Your task to perform on an android device: What's the weather? Image 0: 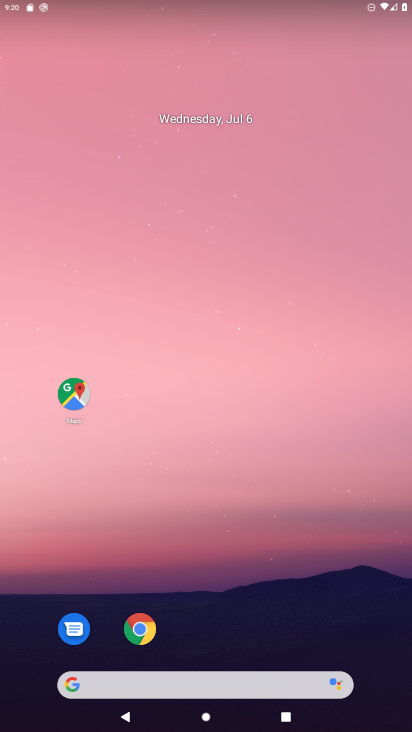
Step 0: drag from (270, 555) to (342, 16)
Your task to perform on an android device: What's the weather? Image 1: 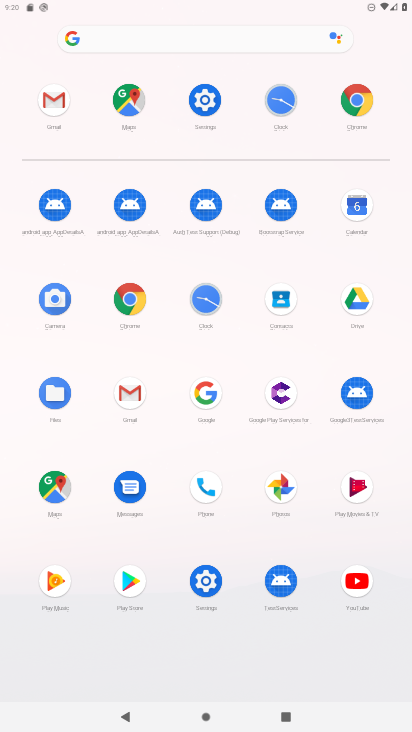
Step 1: click (204, 404)
Your task to perform on an android device: What's the weather? Image 2: 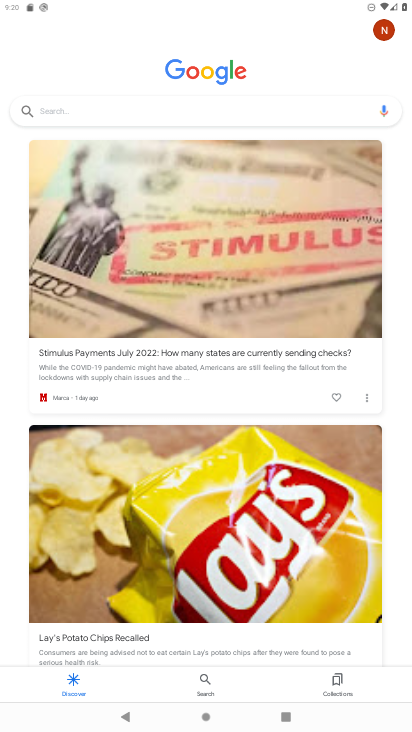
Step 2: click (122, 106)
Your task to perform on an android device: What's the weather? Image 3: 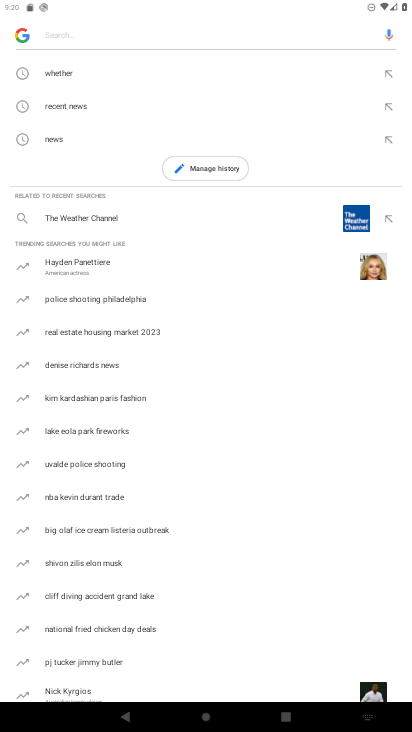
Step 3: type "weather"
Your task to perform on an android device: What's the weather? Image 4: 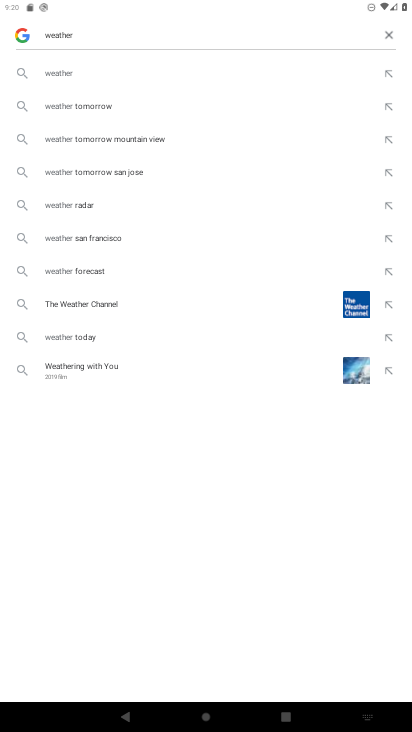
Step 4: click (66, 78)
Your task to perform on an android device: What's the weather? Image 5: 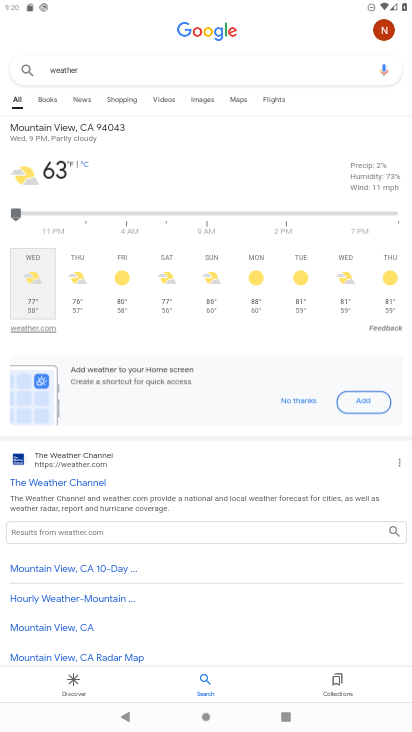
Step 5: task complete